Your task to perform on an android device: Go to ESPN.com Image 0: 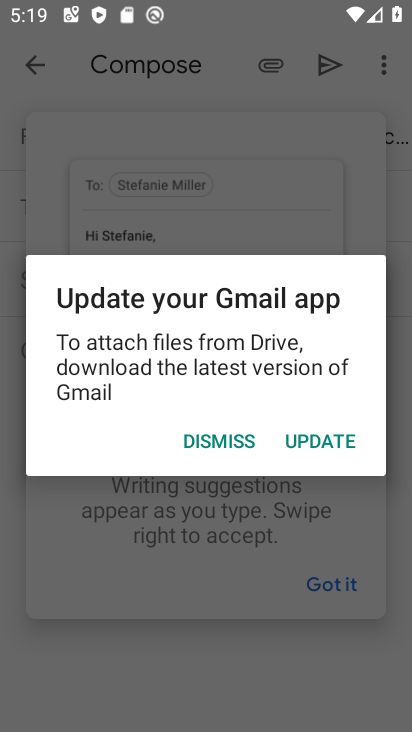
Step 0: press home button
Your task to perform on an android device: Go to ESPN.com Image 1: 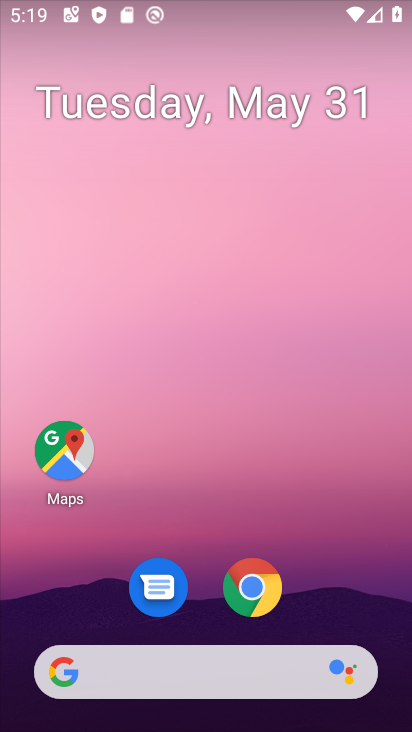
Step 1: click (198, 685)
Your task to perform on an android device: Go to ESPN.com Image 2: 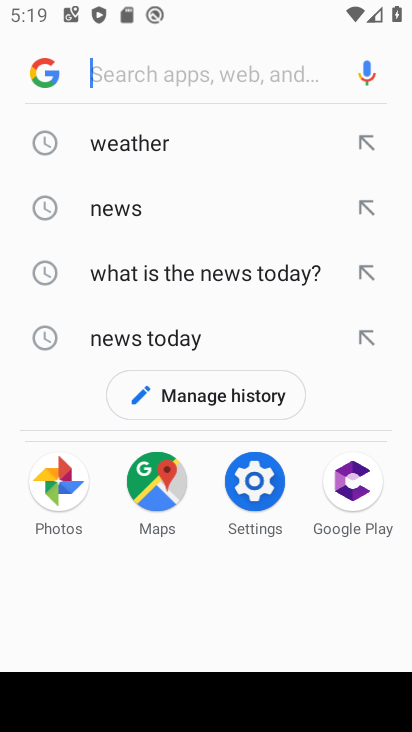
Step 2: click (207, 672)
Your task to perform on an android device: Go to ESPN.com Image 3: 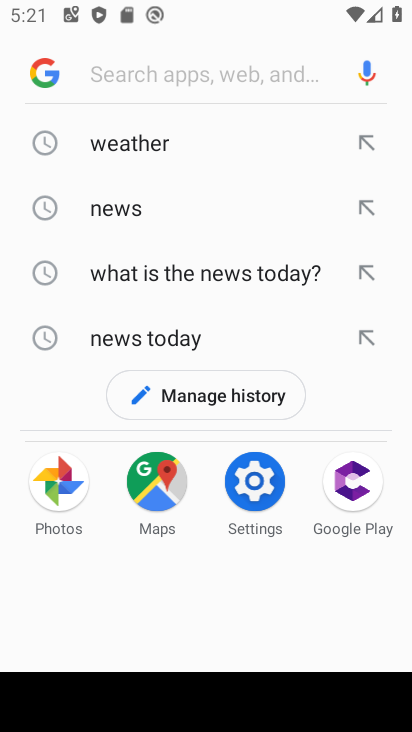
Step 3: type "espn"
Your task to perform on an android device: Go to ESPN.com Image 4: 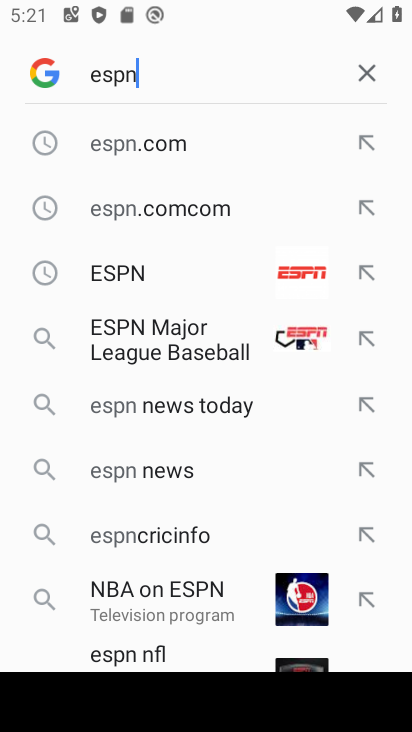
Step 4: click (158, 145)
Your task to perform on an android device: Go to ESPN.com Image 5: 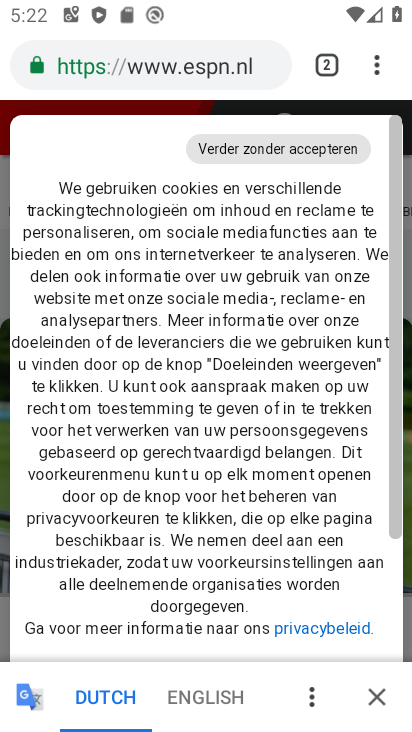
Step 5: task complete